Your task to perform on an android device: Open Google Image 0: 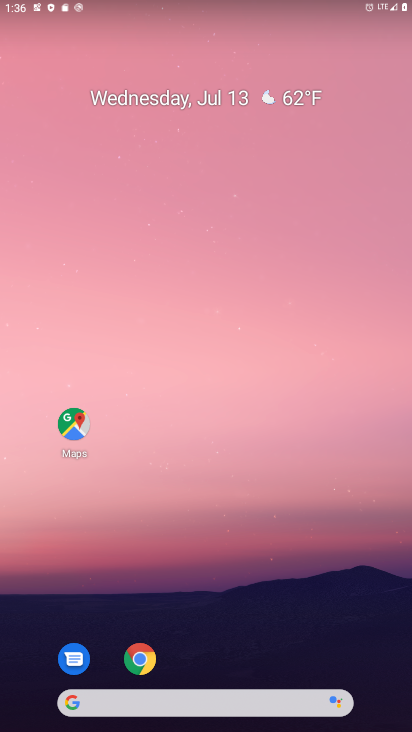
Step 0: drag from (228, 728) to (237, 616)
Your task to perform on an android device: Open Google Image 1: 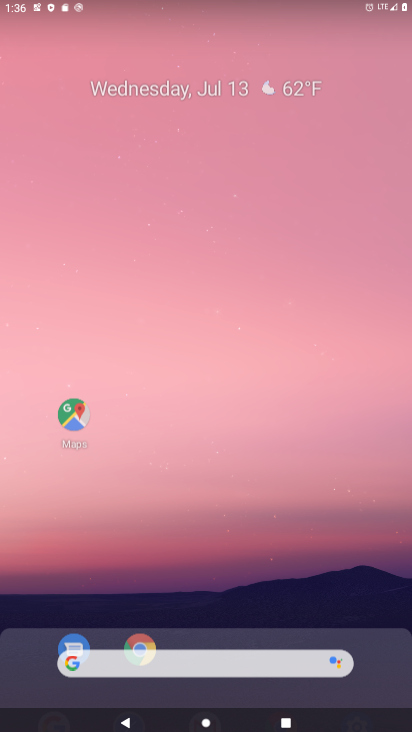
Step 1: drag from (254, 217) to (254, 167)
Your task to perform on an android device: Open Google Image 2: 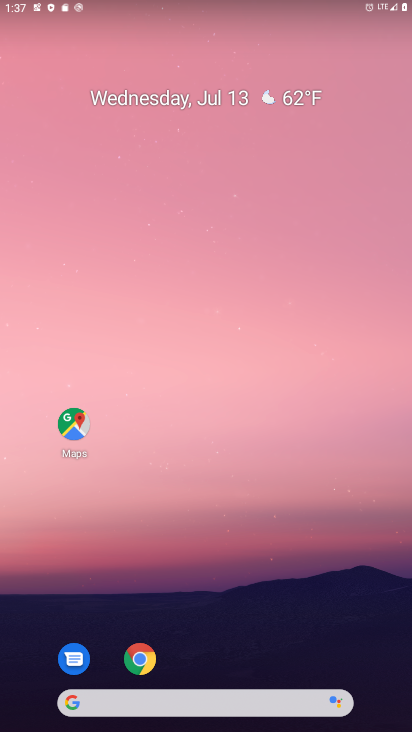
Step 2: drag from (227, 706) to (217, 162)
Your task to perform on an android device: Open Google Image 3: 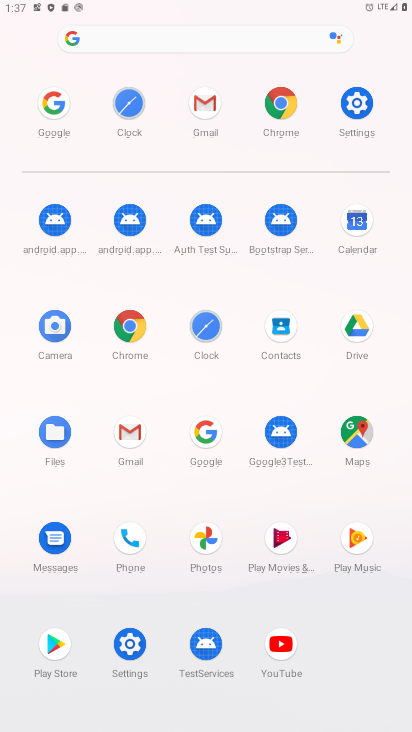
Step 3: click (203, 434)
Your task to perform on an android device: Open Google Image 4: 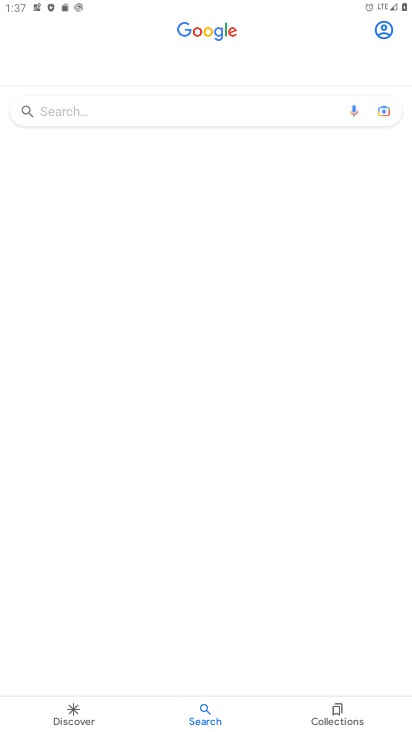
Step 4: click (65, 702)
Your task to perform on an android device: Open Google Image 5: 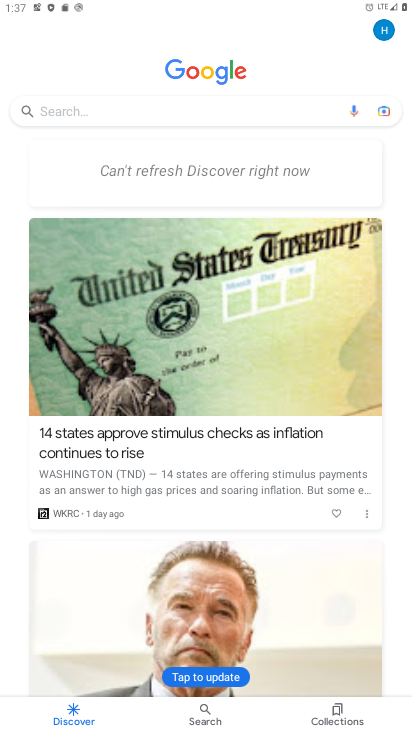
Step 5: task complete